Your task to perform on an android device: Go to display settings Image 0: 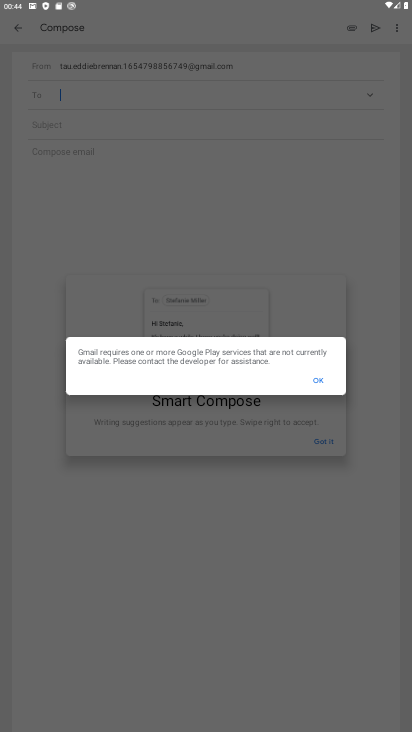
Step 0: press home button
Your task to perform on an android device: Go to display settings Image 1: 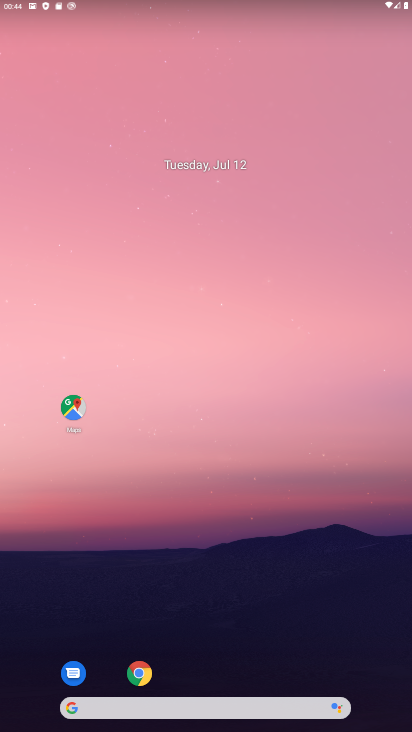
Step 1: drag from (269, 652) to (277, 152)
Your task to perform on an android device: Go to display settings Image 2: 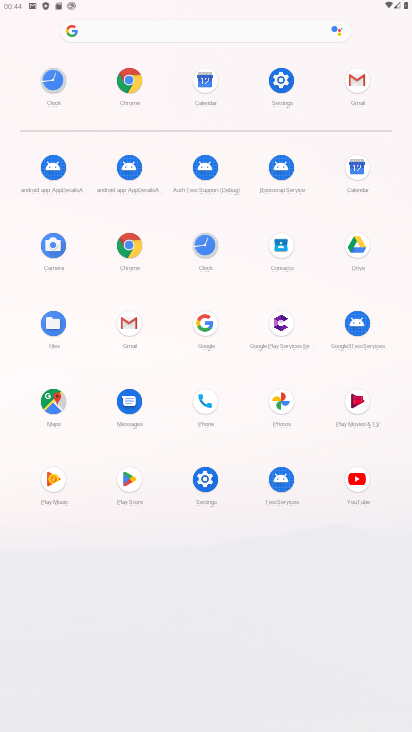
Step 2: click (285, 84)
Your task to perform on an android device: Go to display settings Image 3: 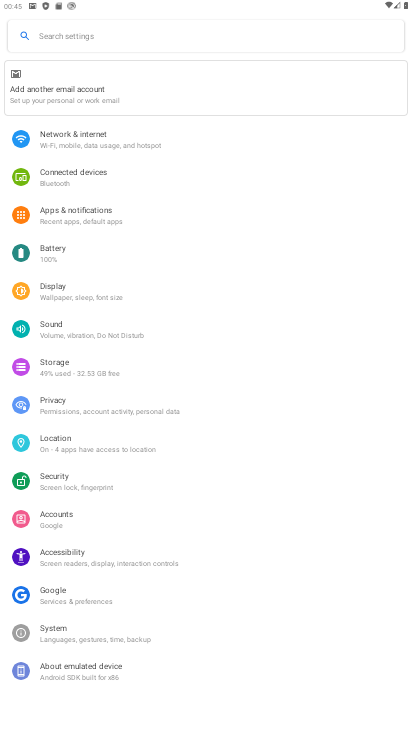
Step 3: click (111, 293)
Your task to perform on an android device: Go to display settings Image 4: 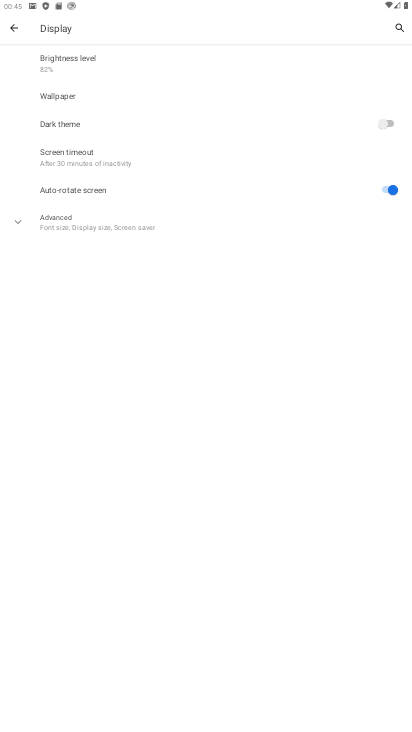
Step 4: task complete